Your task to perform on an android device: What's the latest news in space technology? Image 0: 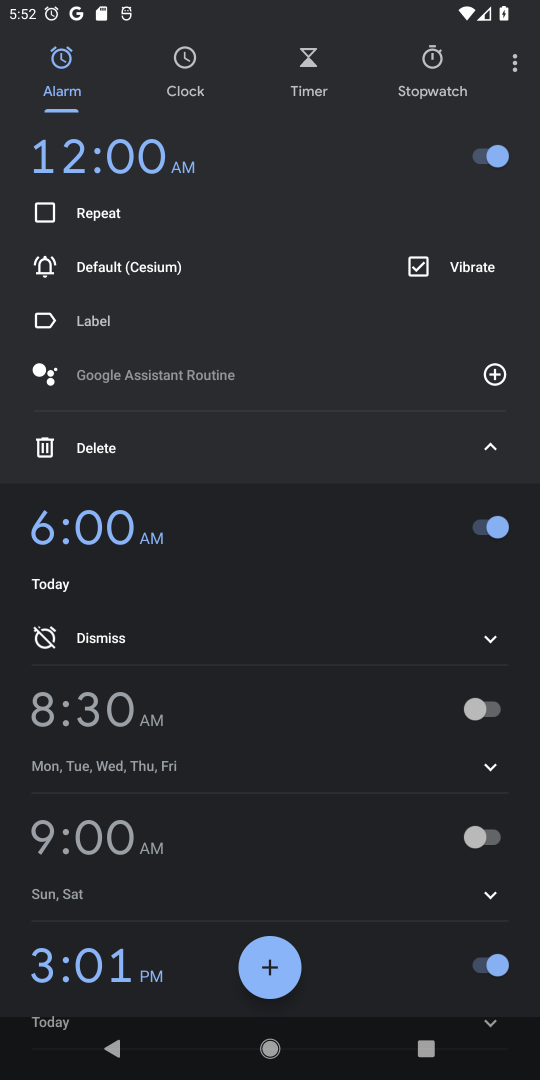
Step 0: press home button
Your task to perform on an android device: What's the latest news in space technology? Image 1: 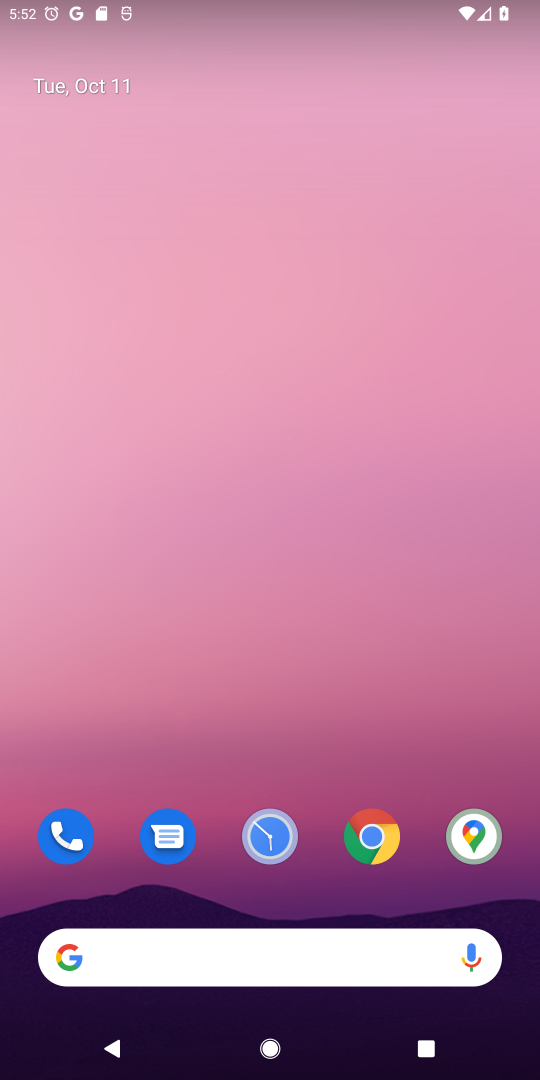
Step 1: click (191, 934)
Your task to perform on an android device: What's the latest news in space technology? Image 2: 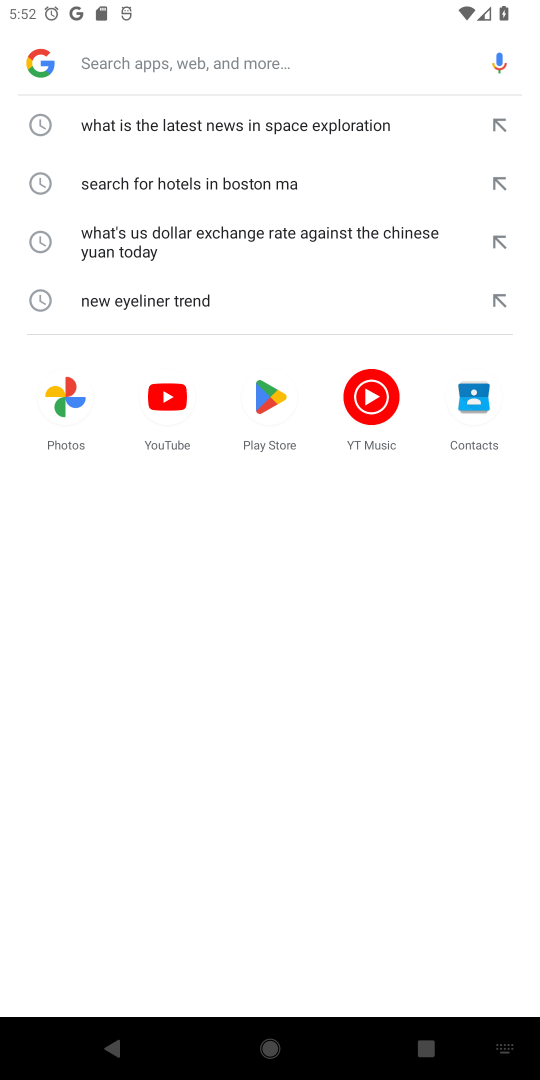
Step 2: type "What's the latest news in space technology?"
Your task to perform on an android device: What's the latest news in space technology? Image 3: 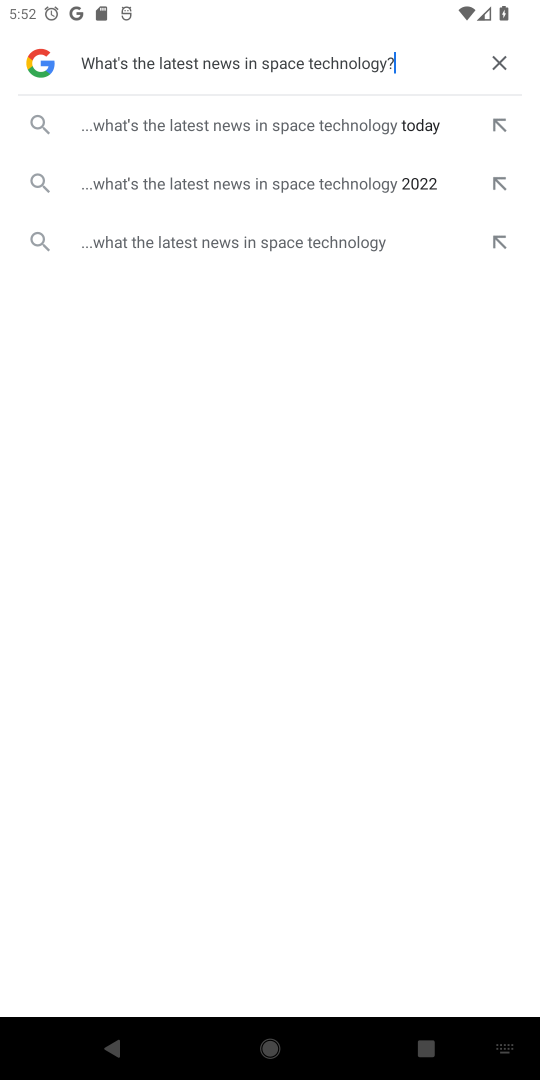
Step 3: click (336, 140)
Your task to perform on an android device: What's the latest news in space technology? Image 4: 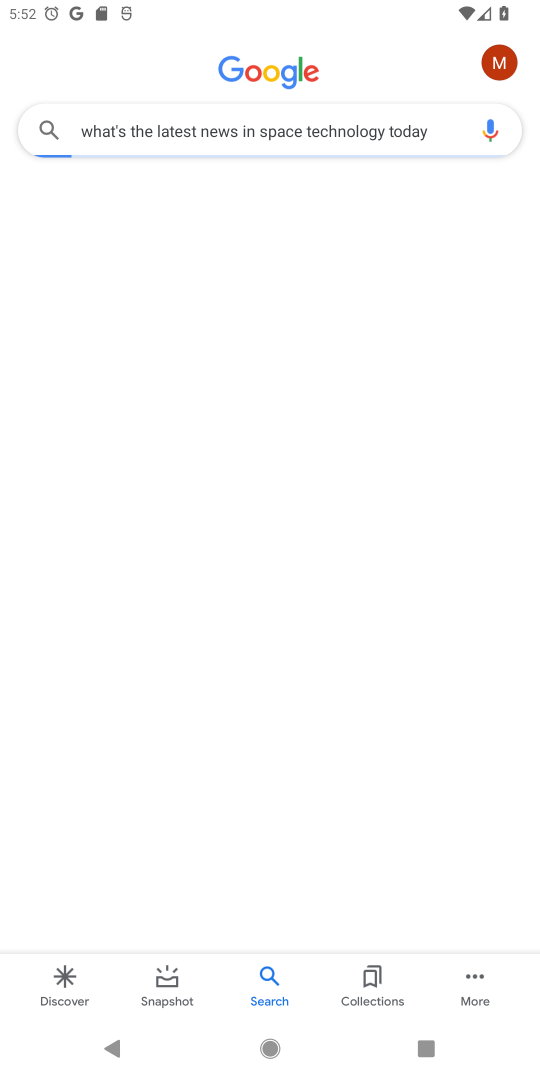
Step 4: task complete